Your task to perform on an android device: turn on airplane mode Image 0: 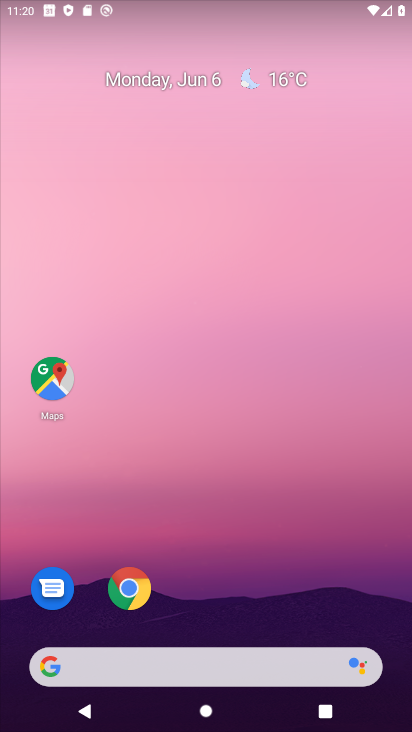
Step 0: drag from (305, 611) to (181, 12)
Your task to perform on an android device: turn on airplane mode Image 1: 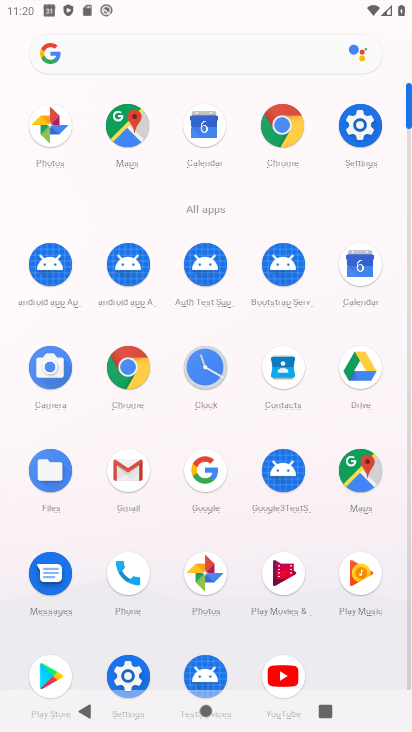
Step 1: click (359, 128)
Your task to perform on an android device: turn on airplane mode Image 2: 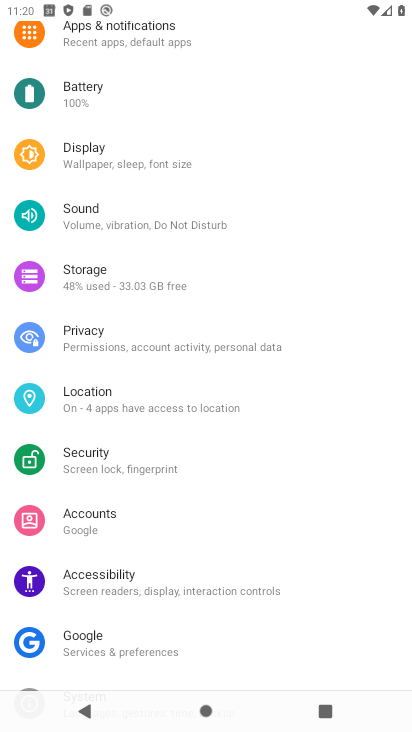
Step 2: drag from (198, 126) to (192, 242)
Your task to perform on an android device: turn on airplane mode Image 3: 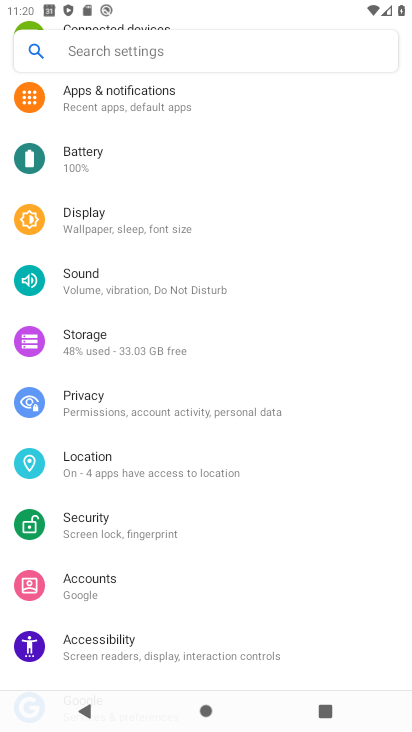
Step 3: drag from (166, 162) to (215, 325)
Your task to perform on an android device: turn on airplane mode Image 4: 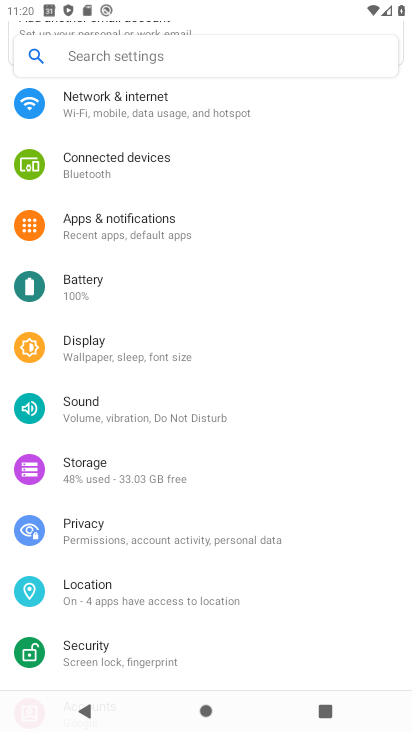
Step 4: drag from (157, 178) to (157, 300)
Your task to perform on an android device: turn on airplane mode Image 5: 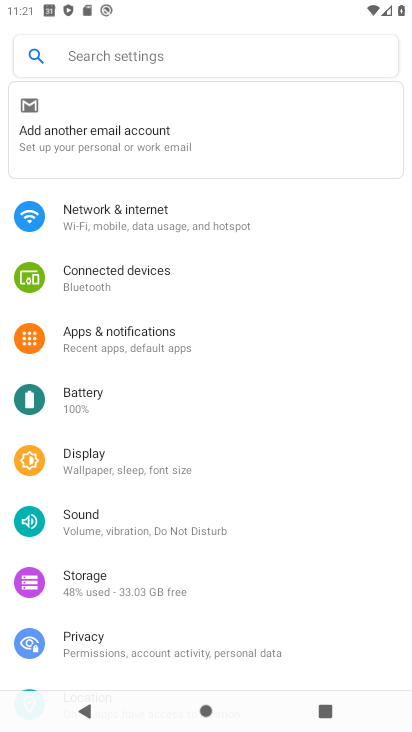
Step 5: click (144, 222)
Your task to perform on an android device: turn on airplane mode Image 6: 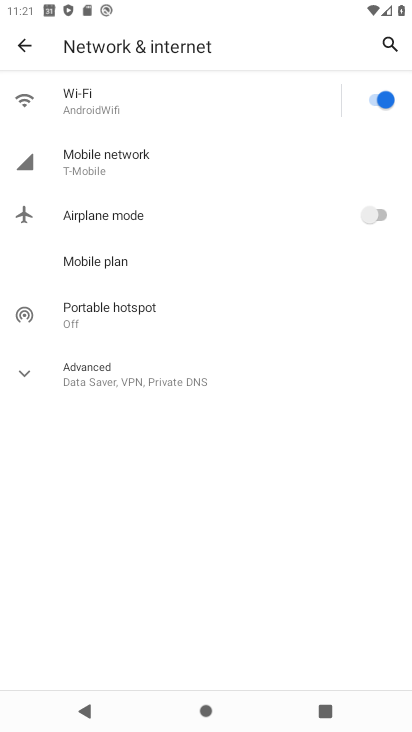
Step 6: click (386, 209)
Your task to perform on an android device: turn on airplane mode Image 7: 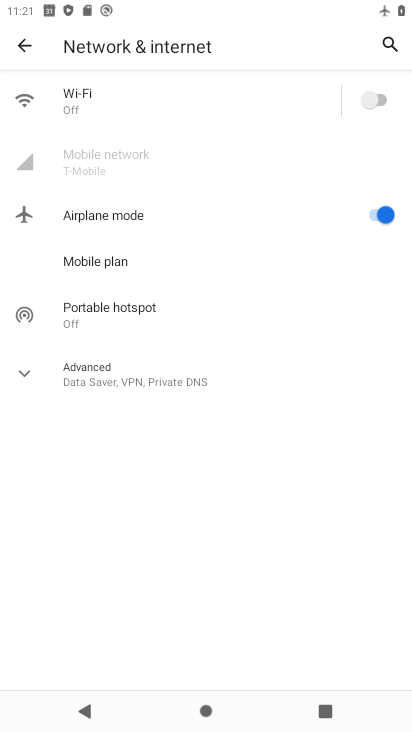
Step 7: task complete